Your task to perform on an android device: turn on javascript in the chrome app Image 0: 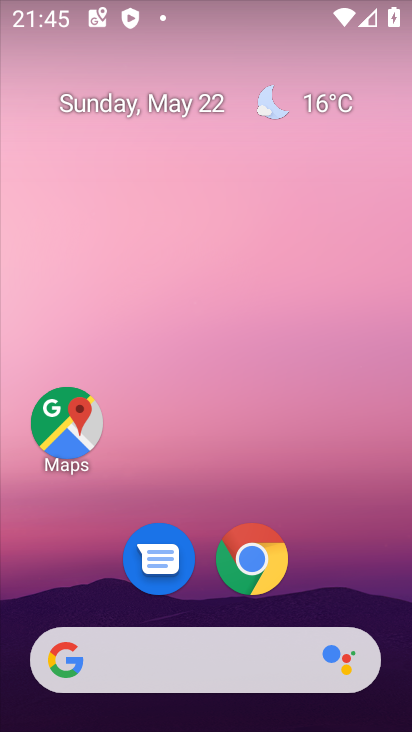
Step 0: drag from (253, 684) to (181, 127)
Your task to perform on an android device: turn on javascript in the chrome app Image 1: 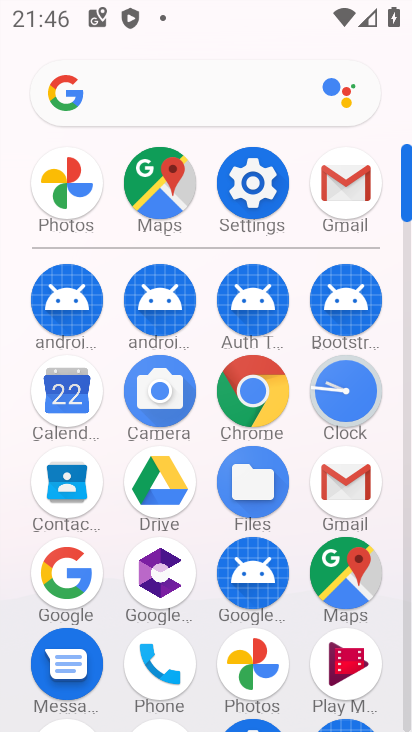
Step 1: click (257, 384)
Your task to perform on an android device: turn on javascript in the chrome app Image 2: 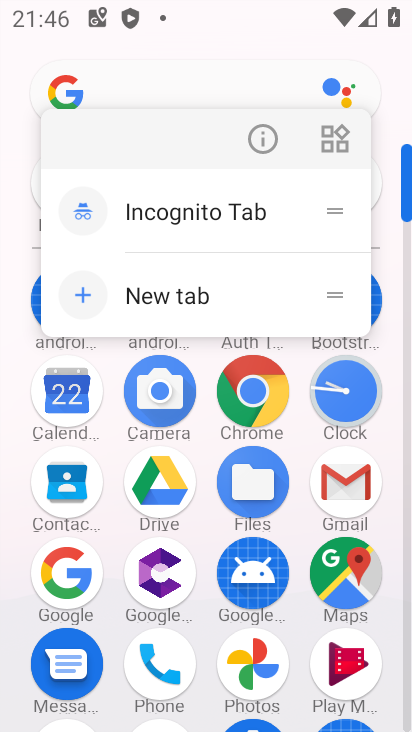
Step 2: click (253, 412)
Your task to perform on an android device: turn on javascript in the chrome app Image 3: 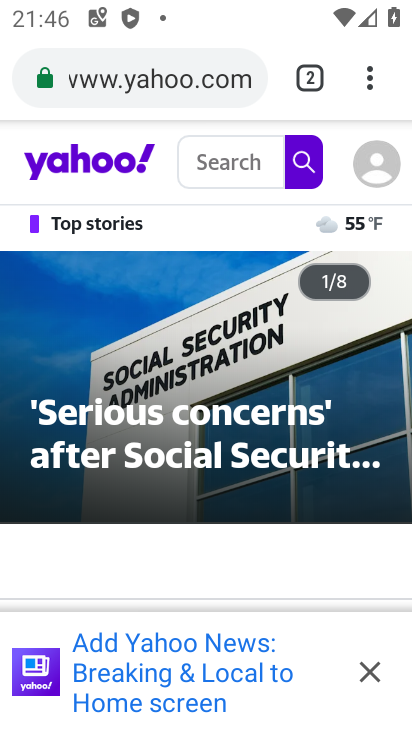
Step 3: click (369, 79)
Your task to perform on an android device: turn on javascript in the chrome app Image 4: 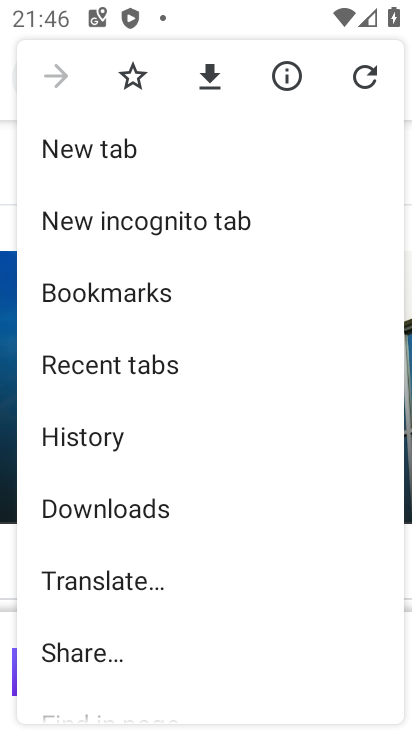
Step 4: drag from (180, 635) to (216, 350)
Your task to perform on an android device: turn on javascript in the chrome app Image 5: 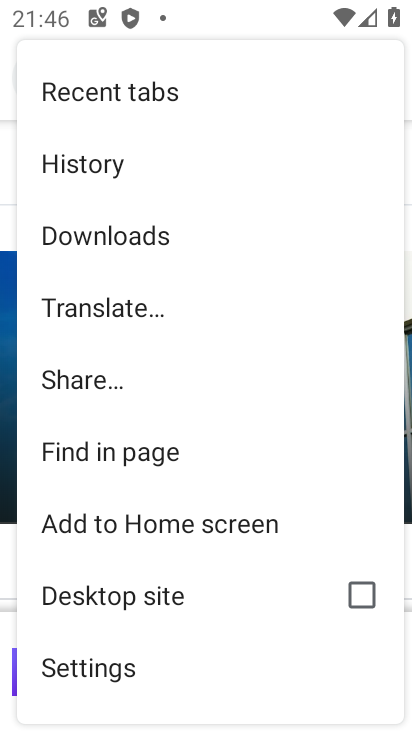
Step 5: click (109, 657)
Your task to perform on an android device: turn on javascript in the chrome app Image 6: 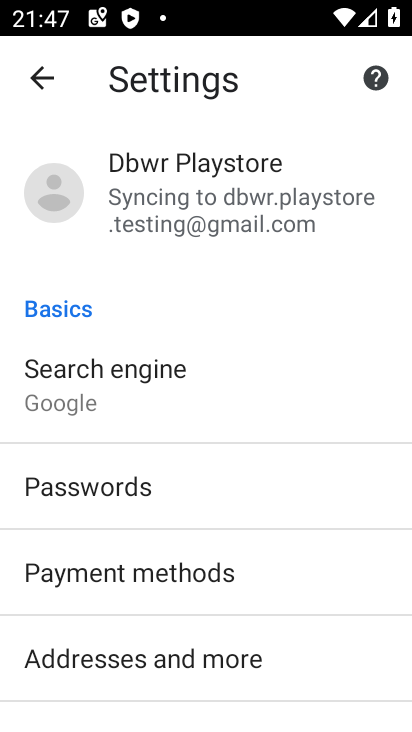
Step 6: drag from (115, 670) to (133, 314)
Your task to perform on an android device: turn on javascript in the chrome app Image 7: 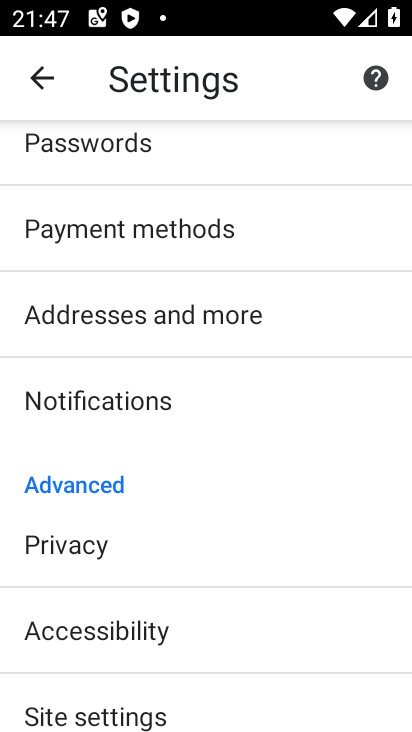
Step 7: click (162, 710)
Your task to perform on an android device: turn on javascript in the chrome app Image 8: 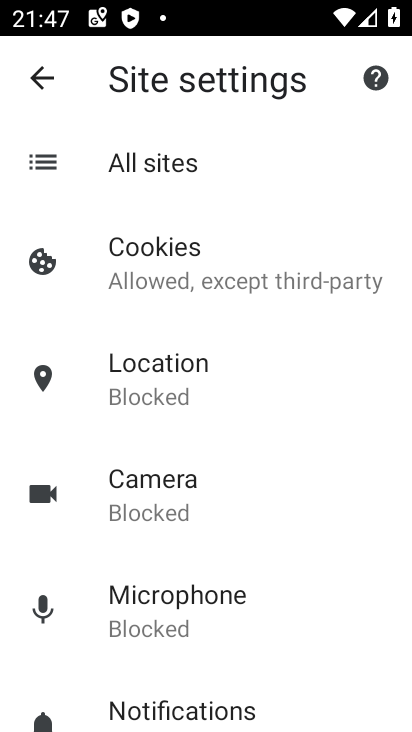
Step 8: drag from (181, 682) to (216, 391)
Your task to perform on an android device: turn on javascript in the chrome app Image 9: 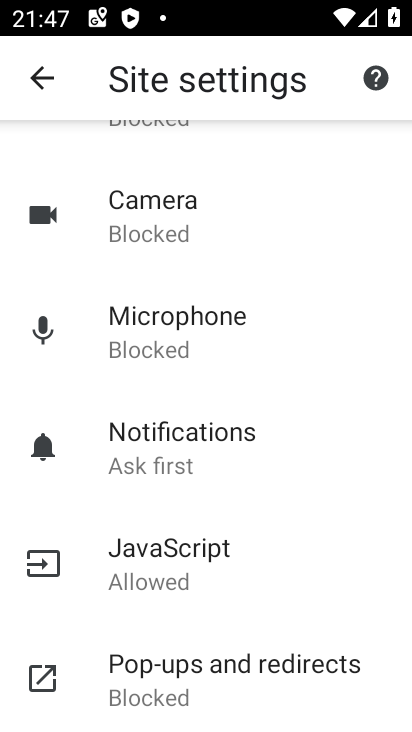
Step 9: click (204, 574)
Your task to perform on an android device: turn on javascript in the chrome app Image 10: 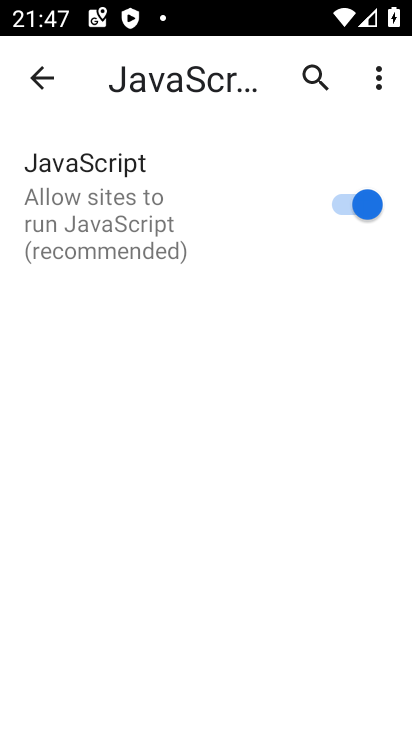
Step 10: click (354, 206)
Your task to perform on an android device: turn on javascript in the chrome app Image 11: 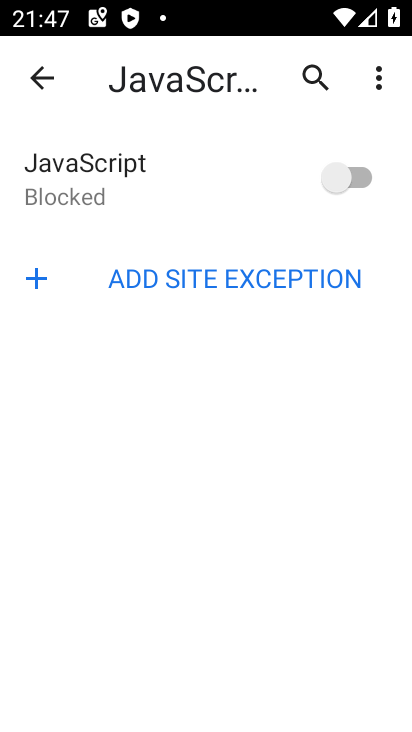
Step 11: click (344, 187)
Your task to perform on an android device: turn on javascript in the chrome app Image 12: 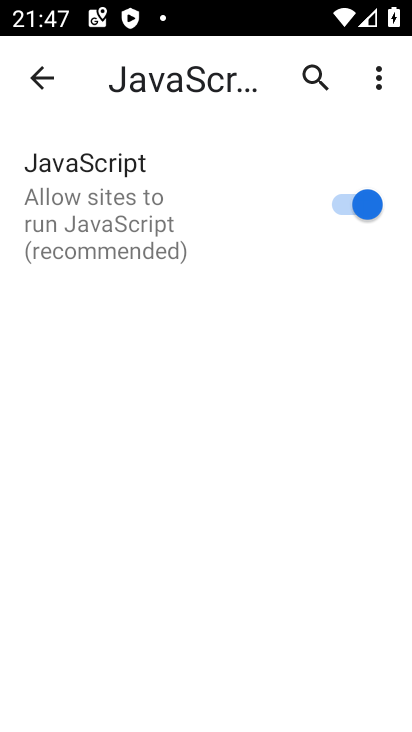
Step 12: task complete